Your task to perform on an android device: Go to sound settings Image 0: 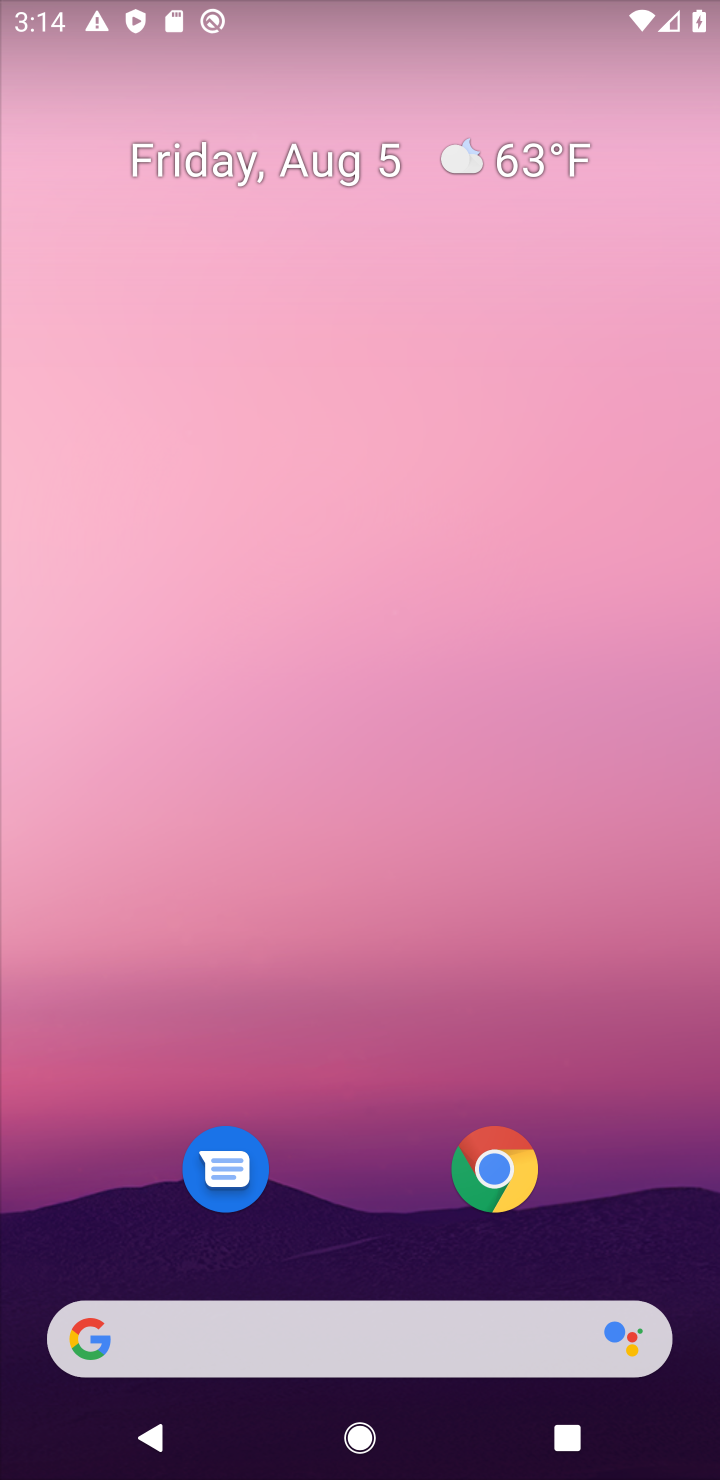
Step 0: drag from (696, 1342) to (621, 243)
Your task to perform on an android device: Go to sound settings Image 1: 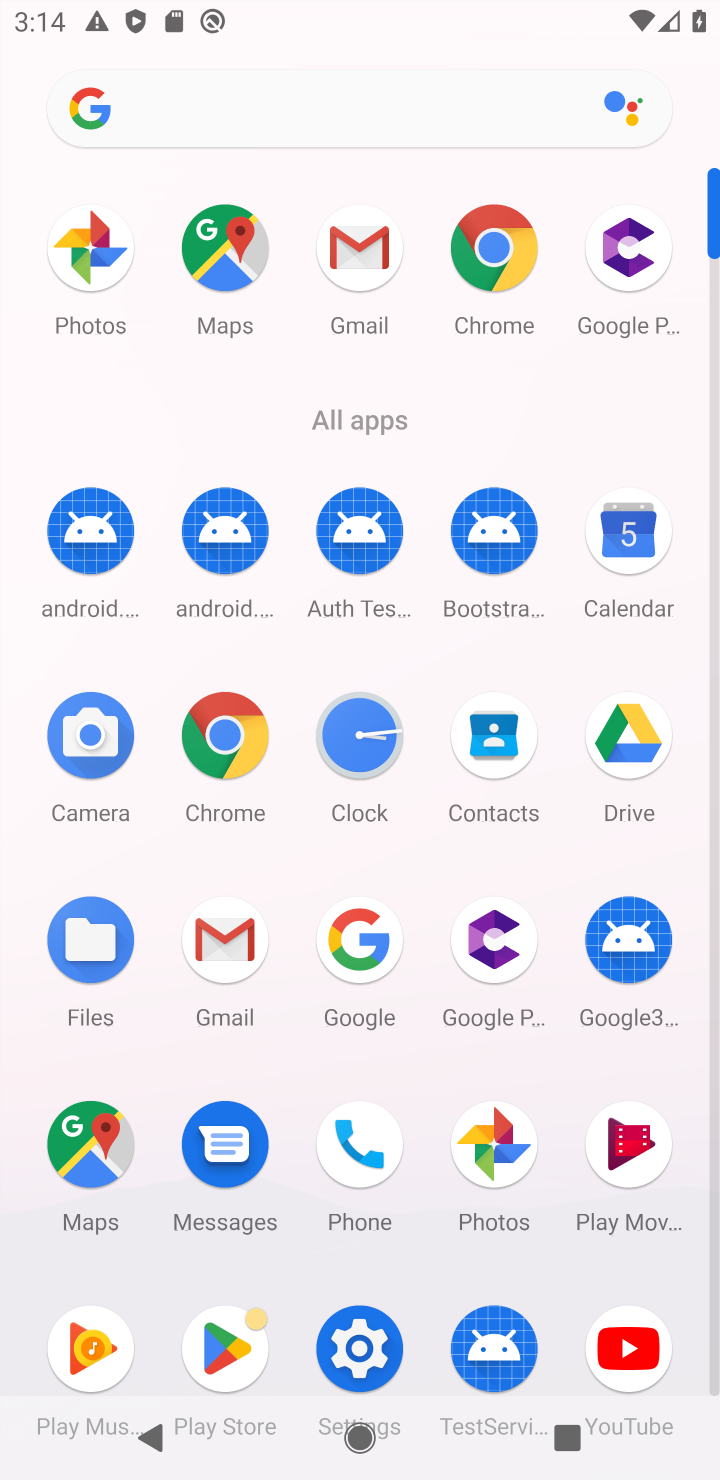
Step 1: click (355, 1340)
Your task to perform on an android device: Go to sound settings Image 2: 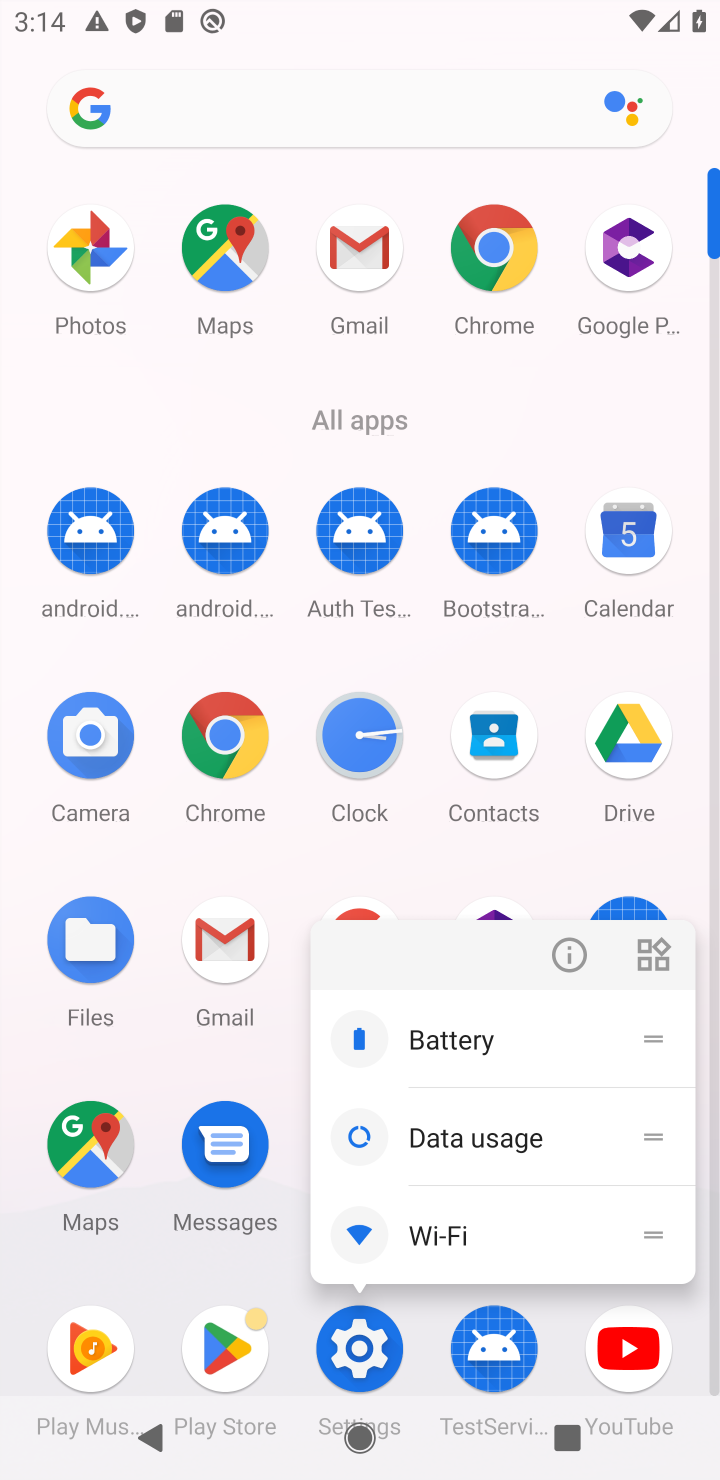
Step 2: click (347, 1321)
Your task to perform on an android device: Go to sound settings Image 3: 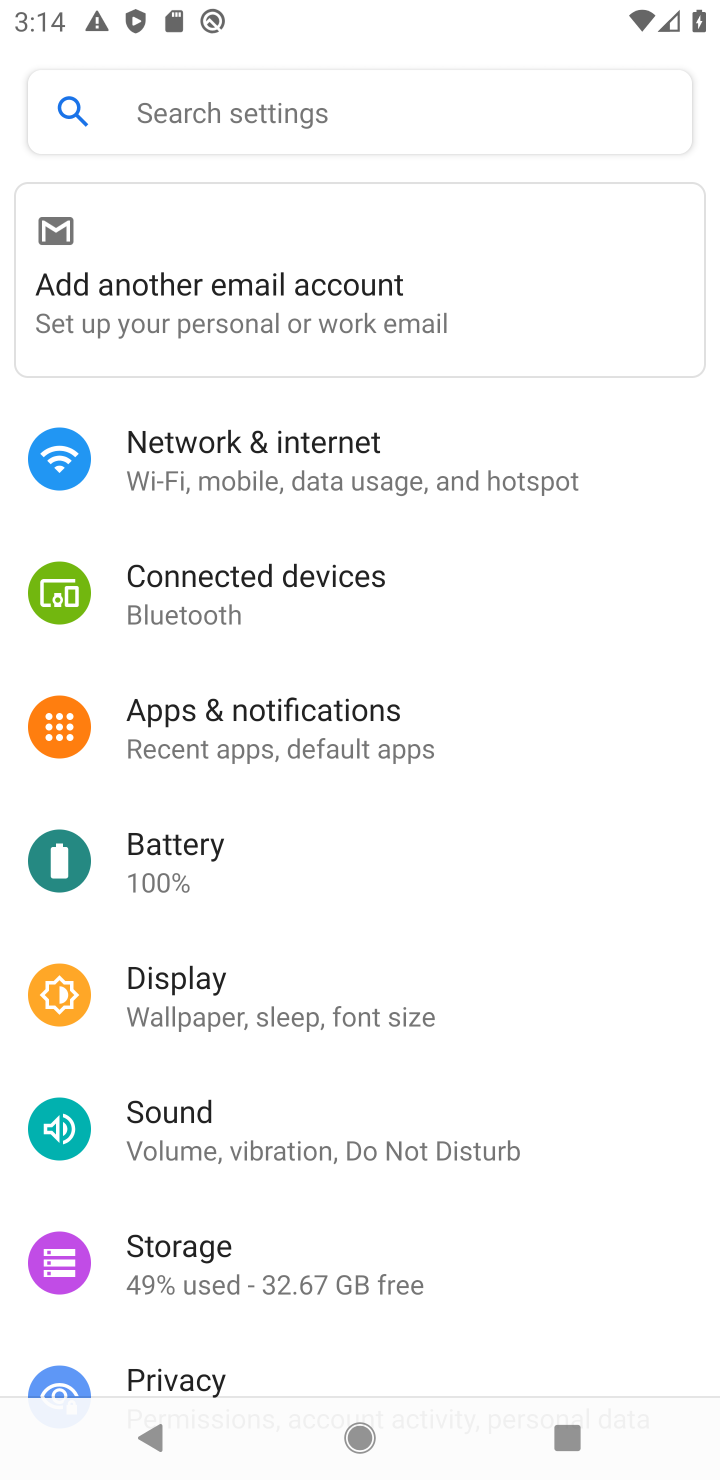
Step 3: click (135, 1121)
Your task to perform on an android device: Go to sound settings Image 4: 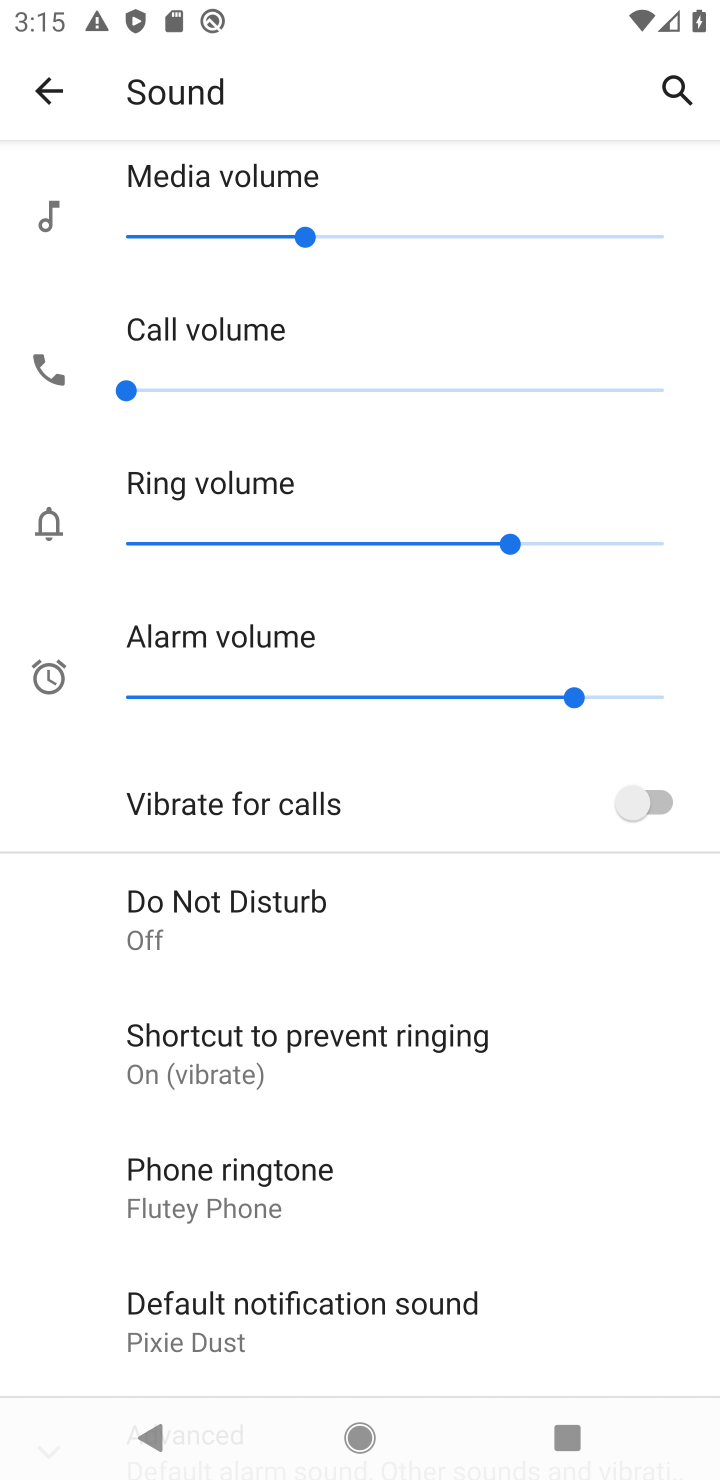
Step 4: task complete